Your task to perform on an android device: Open notification settings Image 0: 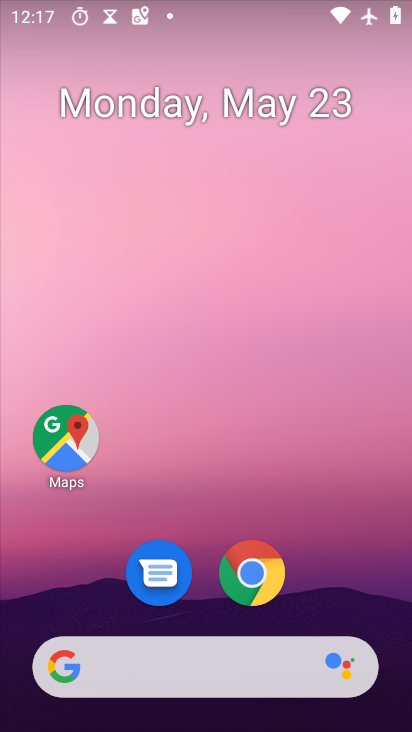
Step 0: drag from (178, 670) to (279, 109)
Your task to perform on an android device: Open notification settings Image 1: 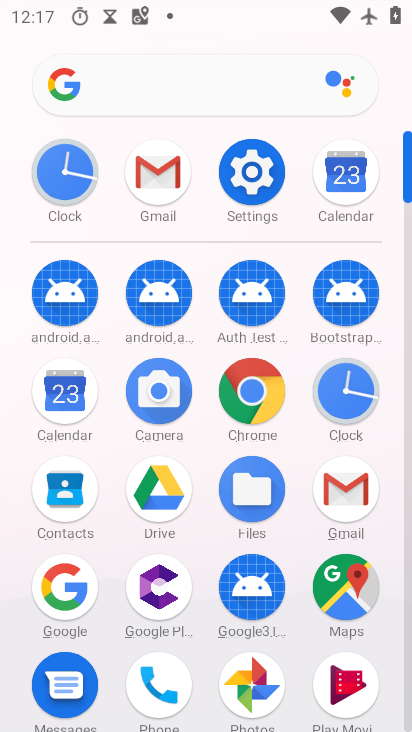
Step 1: click (259, 171)
Your task to perform on an android device: Open notification settings Image 2: 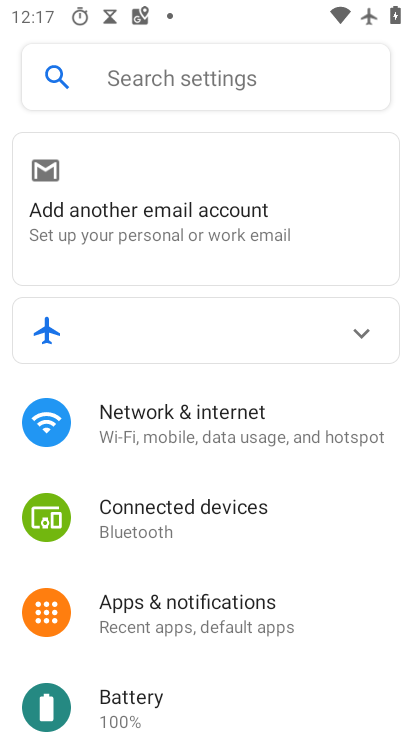
Step 2: click (223, 612)
Your task to perform on an android device: Open notification settings Image 3: 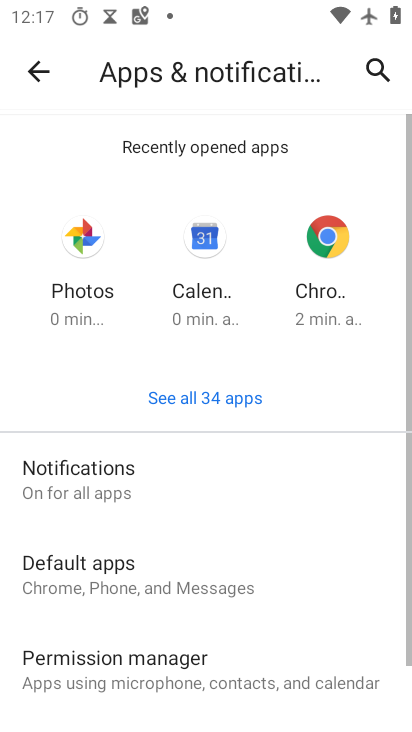
Step 3: click (102, 480)
Your task to perform on an android device: Open notification settings Image 4: 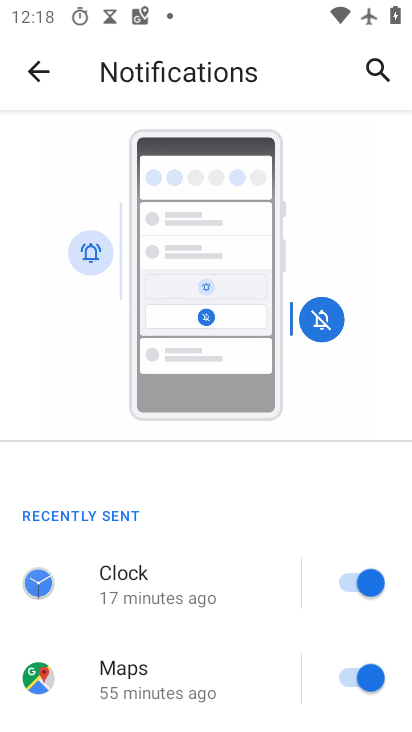
Step 4: task complete